Your task to perform on an android device: clear all cookies in the chrome app Image 0: 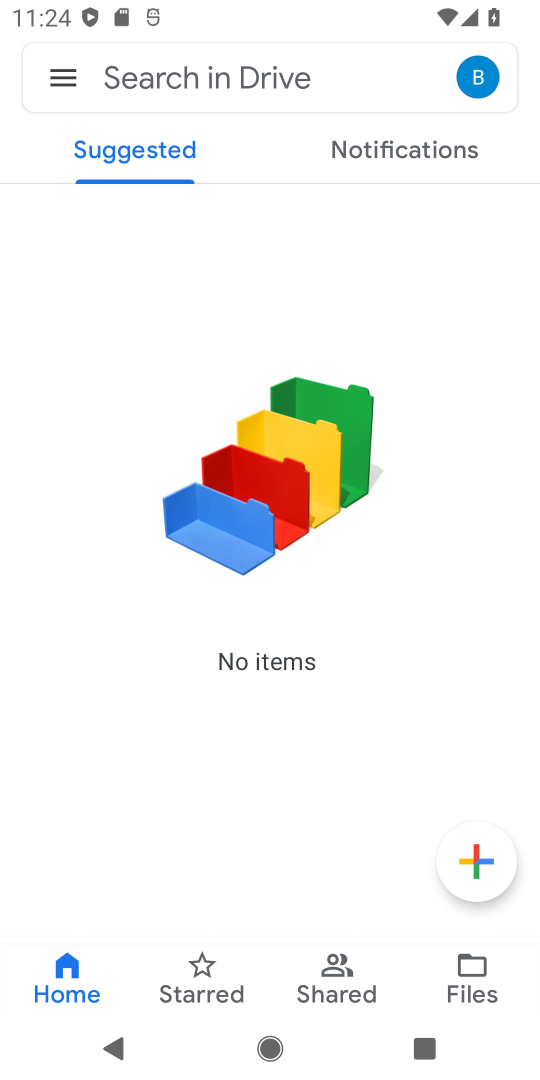
Step 0: press home button
Your task to perform on an android device: clear all cookies in the chrome app Image 1: 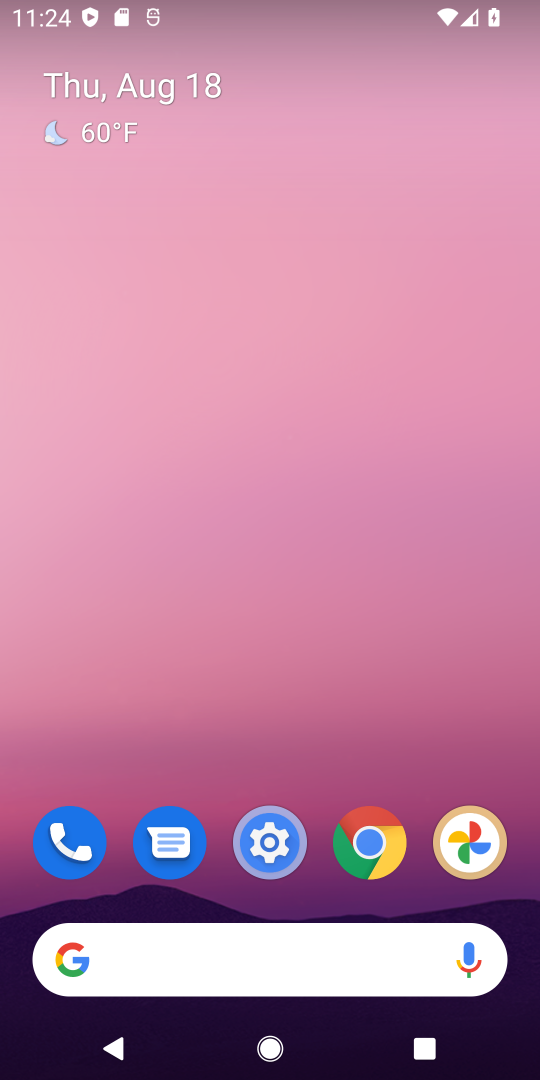
Step 1: click (381, 844)
Your task to perform on an android device: clear all cookies in the chrome app Image 2: 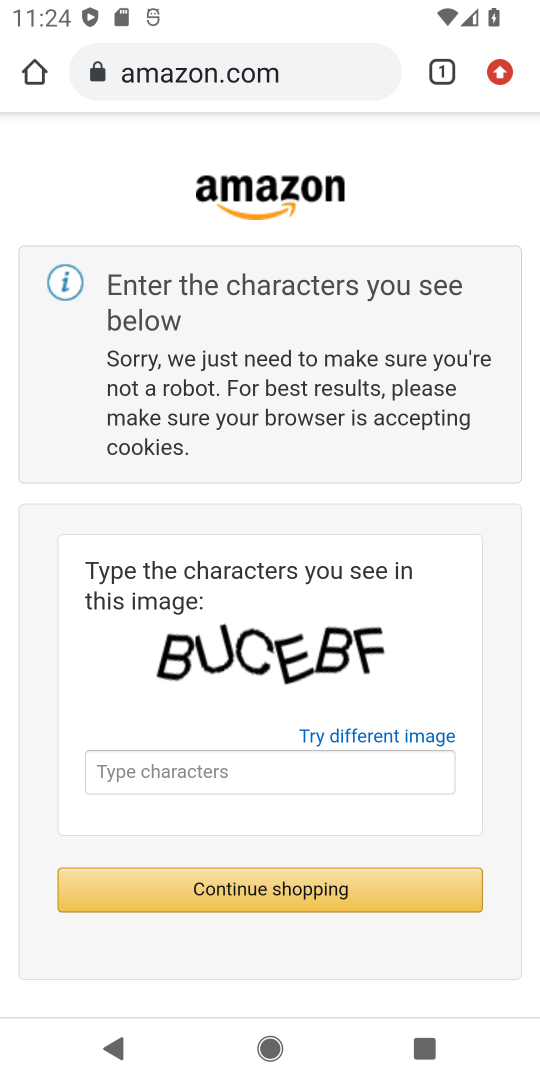
Step 2: click (495, 77)
Your task to perform on an android device: clear all cookies in the chrome app Image 3: 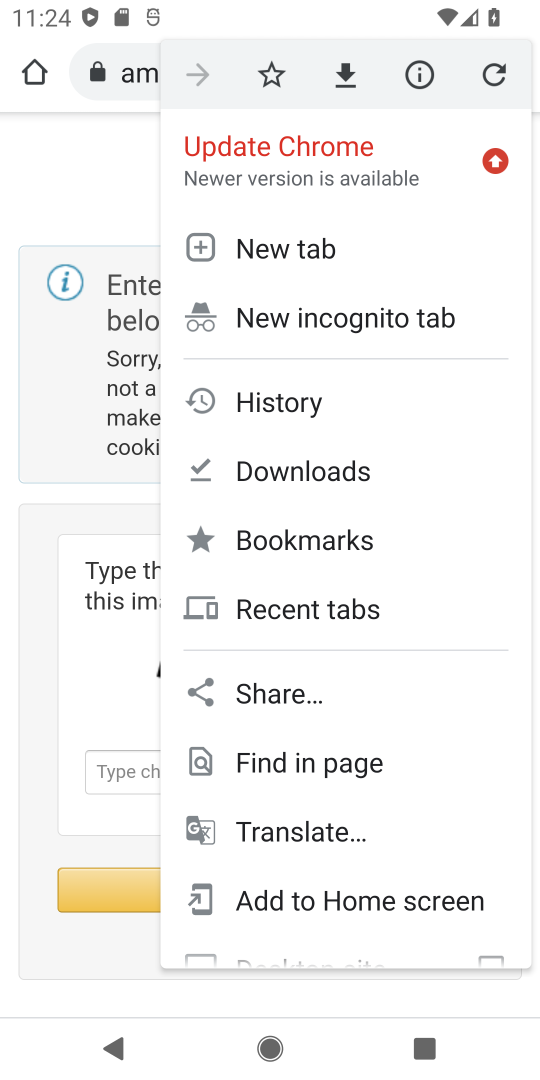
Step 3: click (495, 77)
Your task to perform on an android device: clear all cookies in the chrome app Image 4: 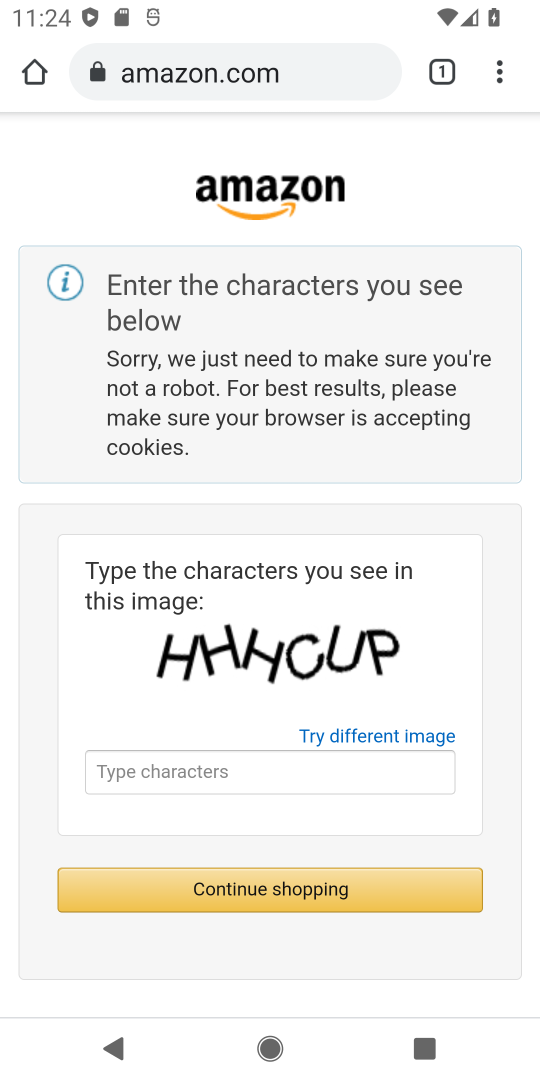
Step 4: click (495, 77)
Your task to perform on an android device: clear all cookies in the chrome app Image 5: 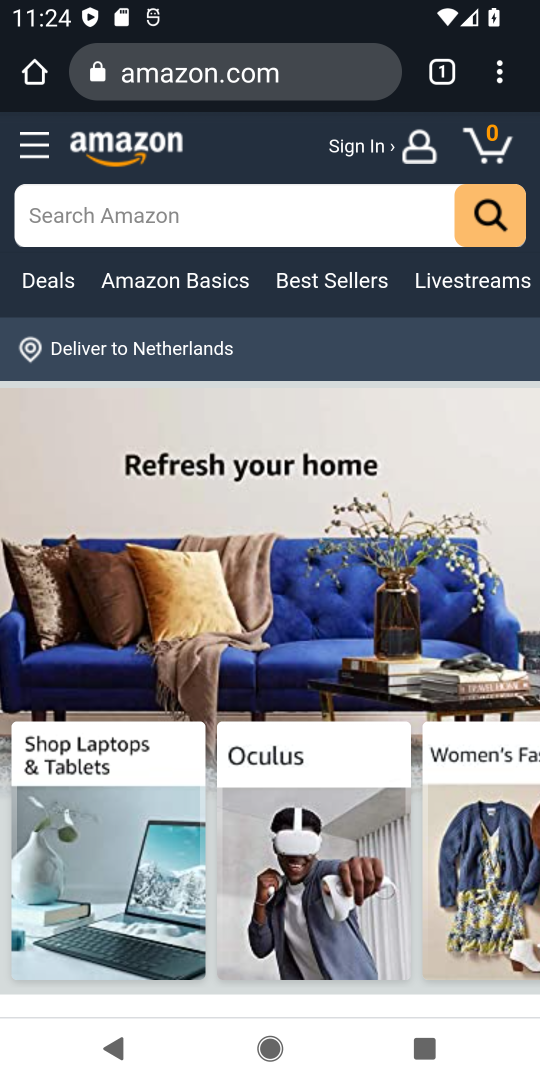
Step 5: click (497, 71)
Your task to perform on an android device: clear all cookies in the chrome app Image 6: 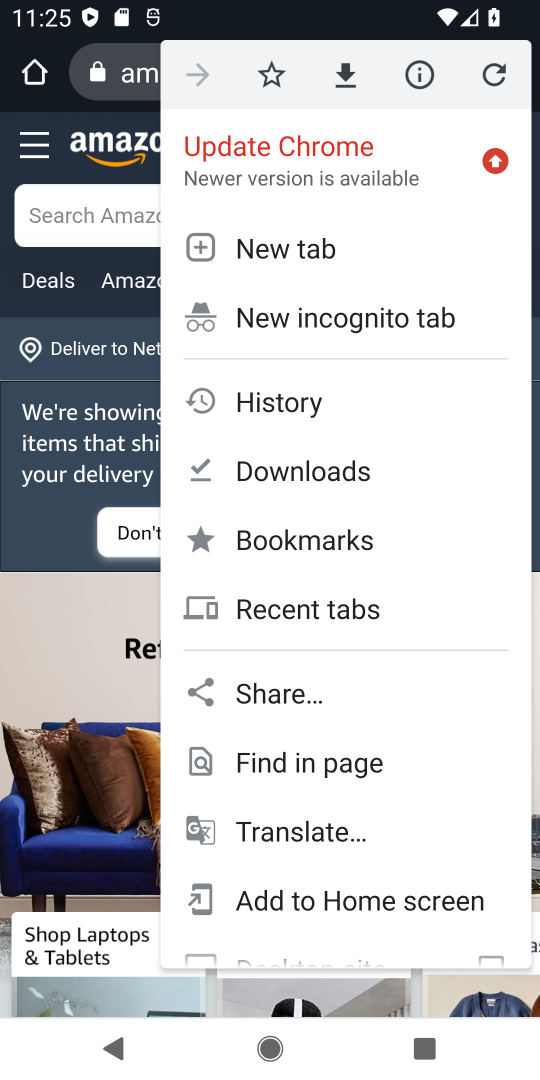
Step 6: click (283, 411)
Your task to perform on an android device: clear all cookies in the chrome app Image 7: 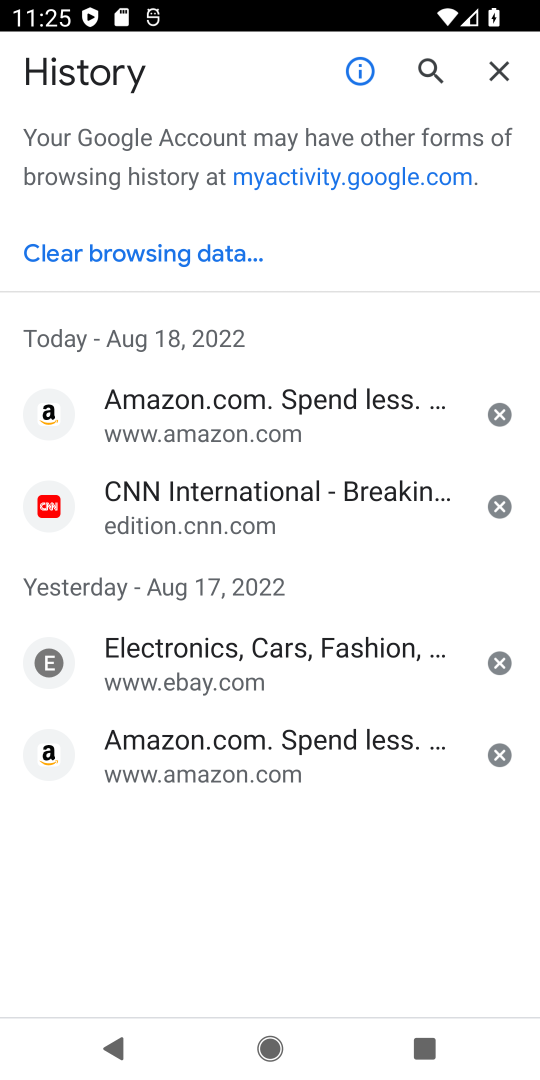
Step 7: click (180, 265)
Your task to perform on an android device: clear all cookies in the chrome app Image 8: 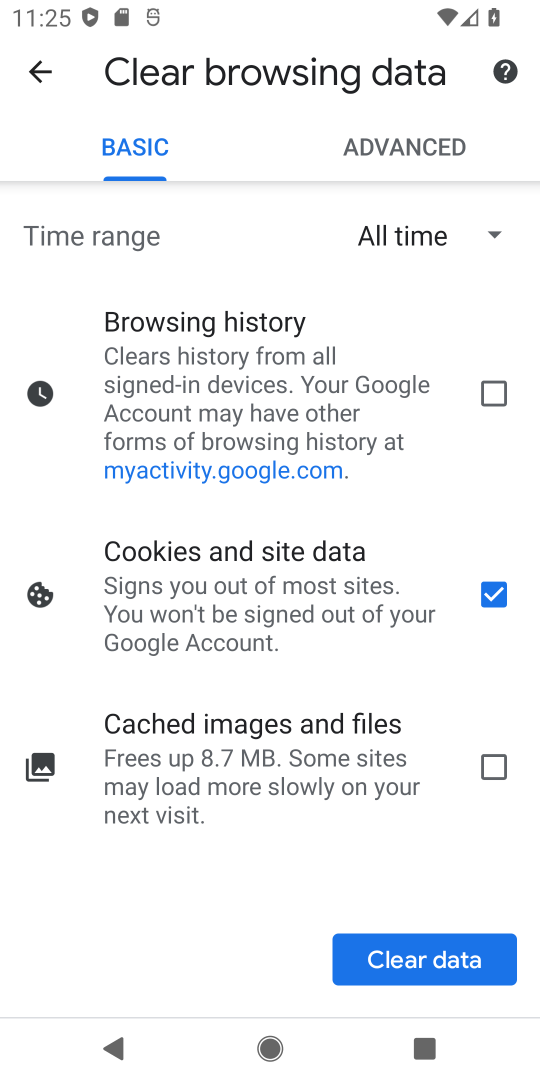
Step 8: click (399, 959)
Your task to perform on an android device: clear all cookies in the chrome app Image 9: 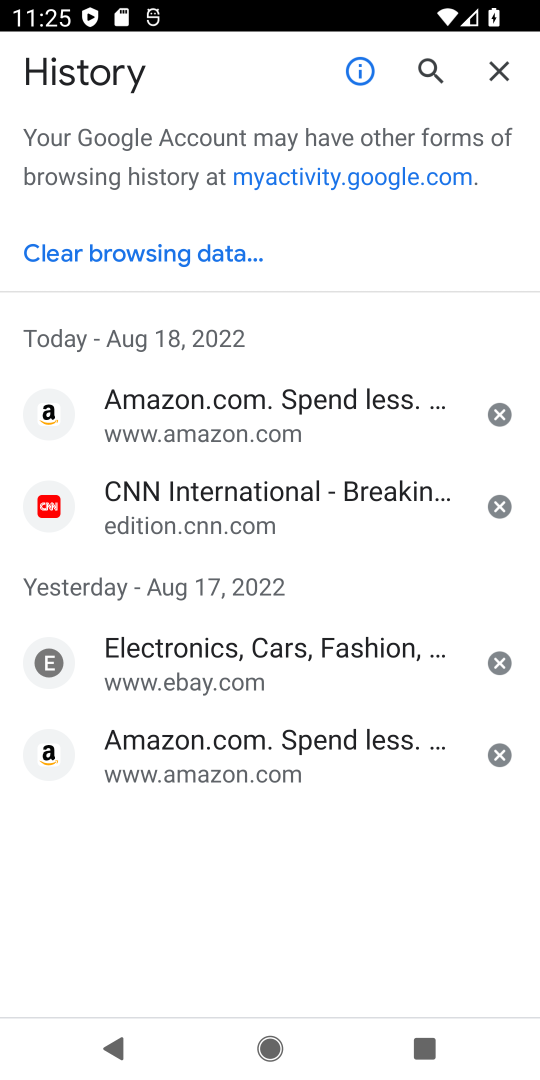
Step 9: task complete